Your task to perform on an android device: turn pop-ups on in chrome Image 0: 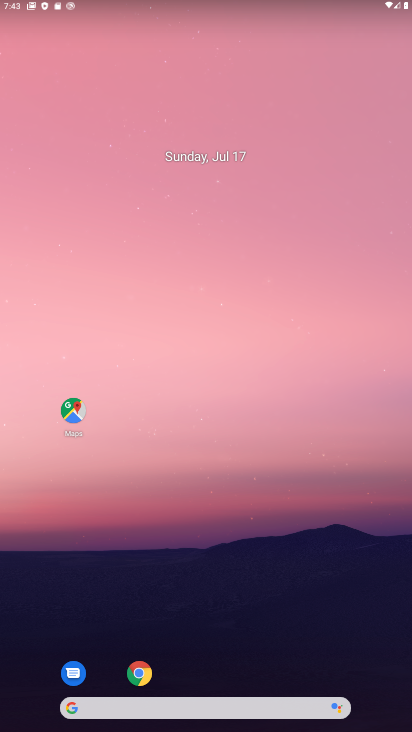
Step 0: click (142, 676)
Your task to perform on an android device: turn pop-ups on in chrome Image 1: 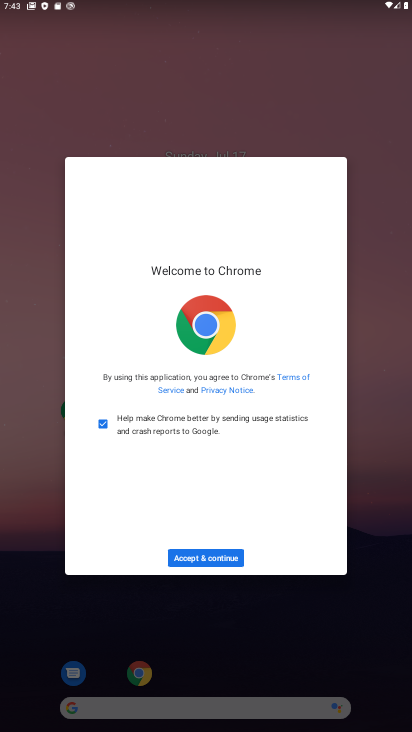
Step 1: click (229, 559)
Your task to perform on an android device: turn pop-ups on in chrome Image 2: 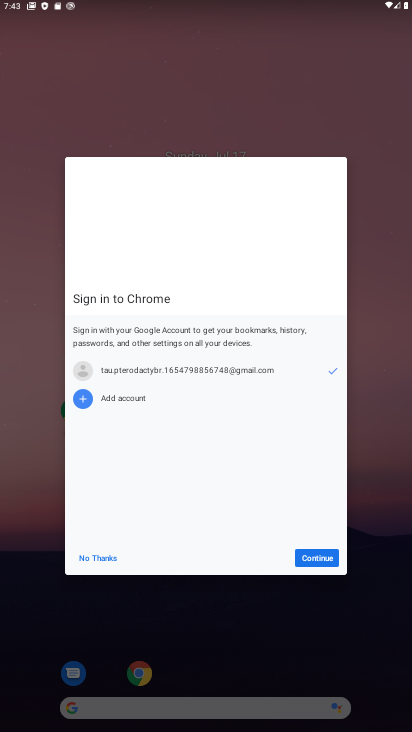
Step 2: click (323, 561)
Your task to perform on an android device: turn pop-ups on in chrome Image 3: 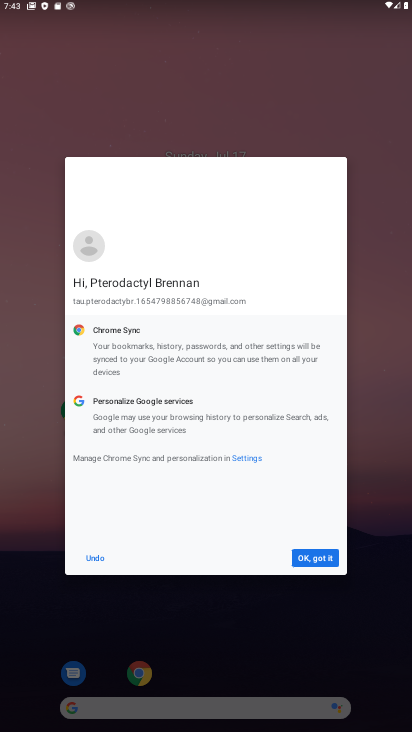
Step 3: click (323, 561)
Your task to perform on an android device: turn pop-ups on in chrome Image 4: 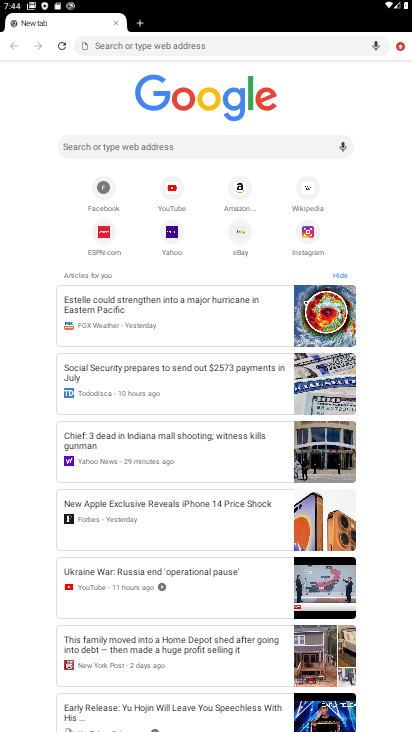
Step 4: click (401, 48)
Your task to perform on an android device: turn pop-ups on in chrome Image 5: 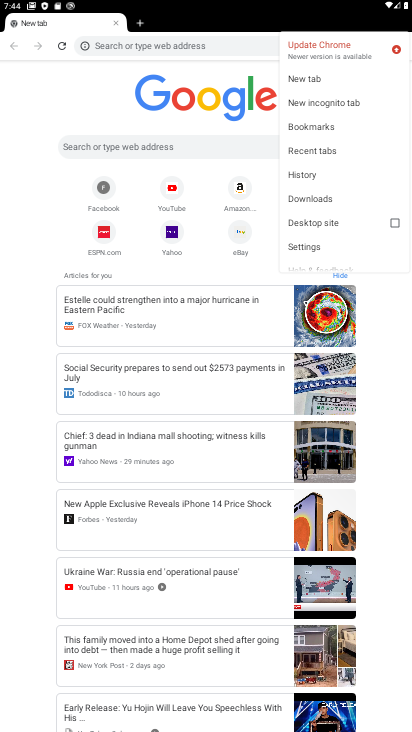
Step 5: click (311, 250)
Your task to perform on an android device: turn pop-ups on in chrome Image 6: 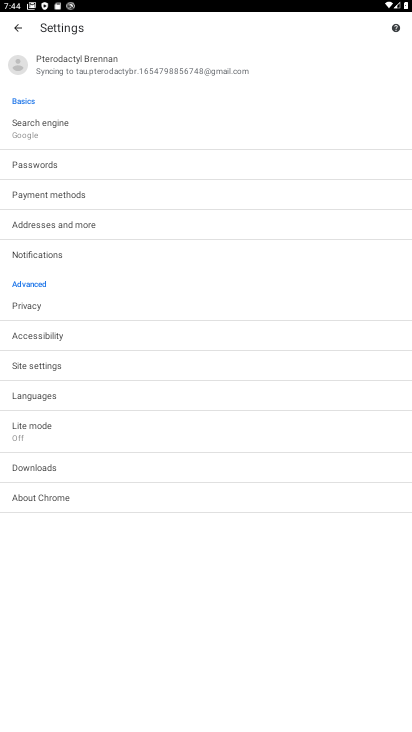
Step 6: click (126, 368)
Your task to perform on an android device: turn pop-ups on in chrome Image 7: 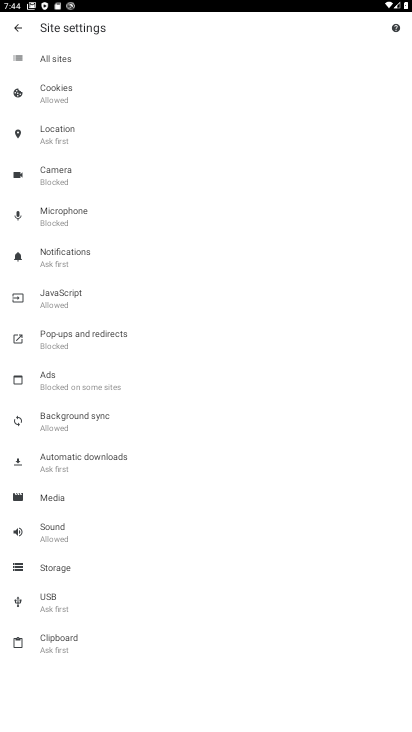
Step 7: click (89, 335)
Your task to perform on an android device: turn pop-ups on in chrome Image 8: 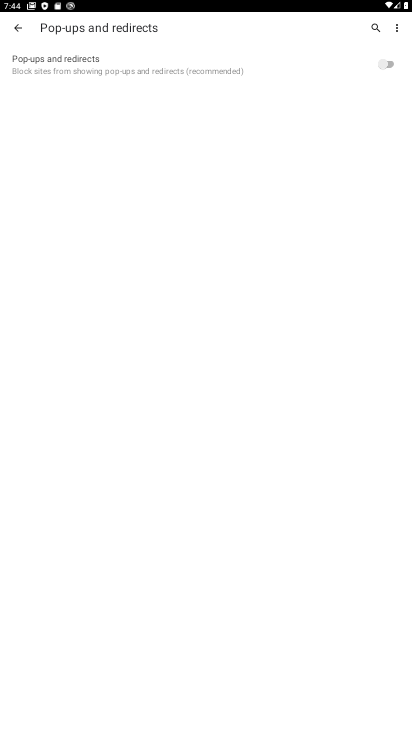
Step 8: click (393, 66)
Your task to perform on an android device: turn pop-ups on in chrome Image 9: 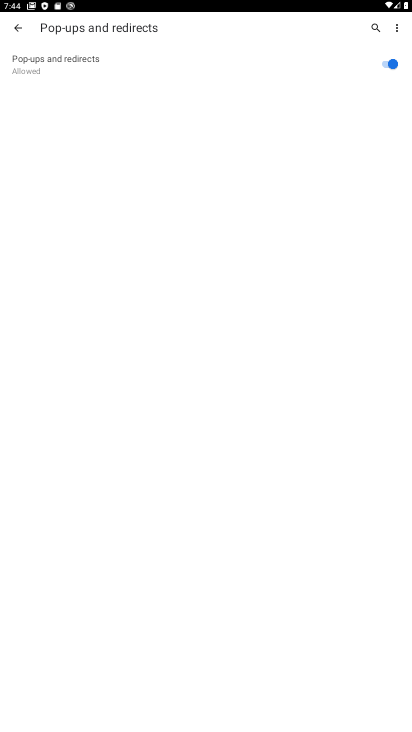
Step 9: task complete